Your task to perform on an android device: move an email to a new category in the gmail app Image 0: 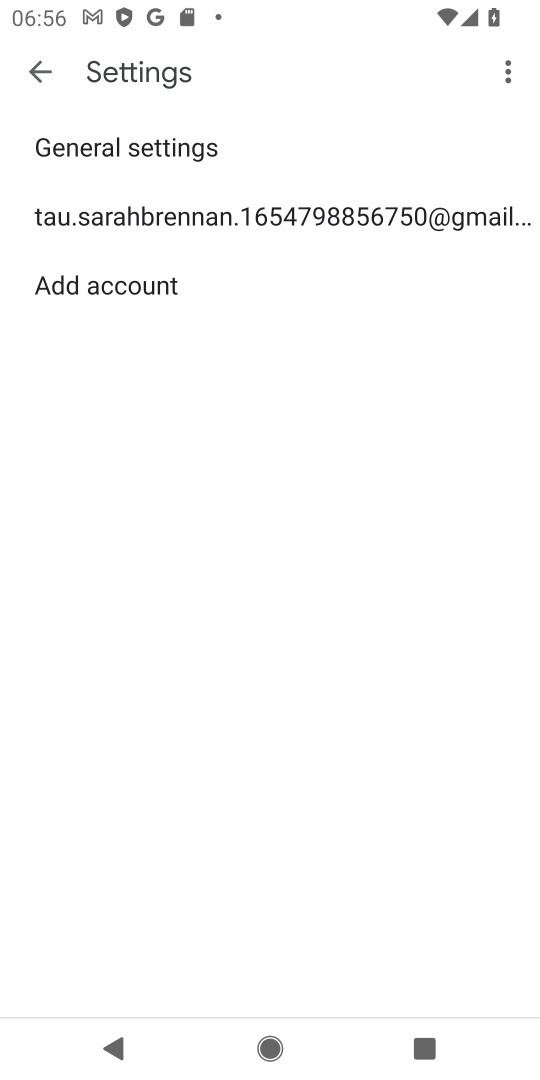
Step 0: press home button
Your task to perform on an android device: move an email to a new category in the gmail app Image 1: 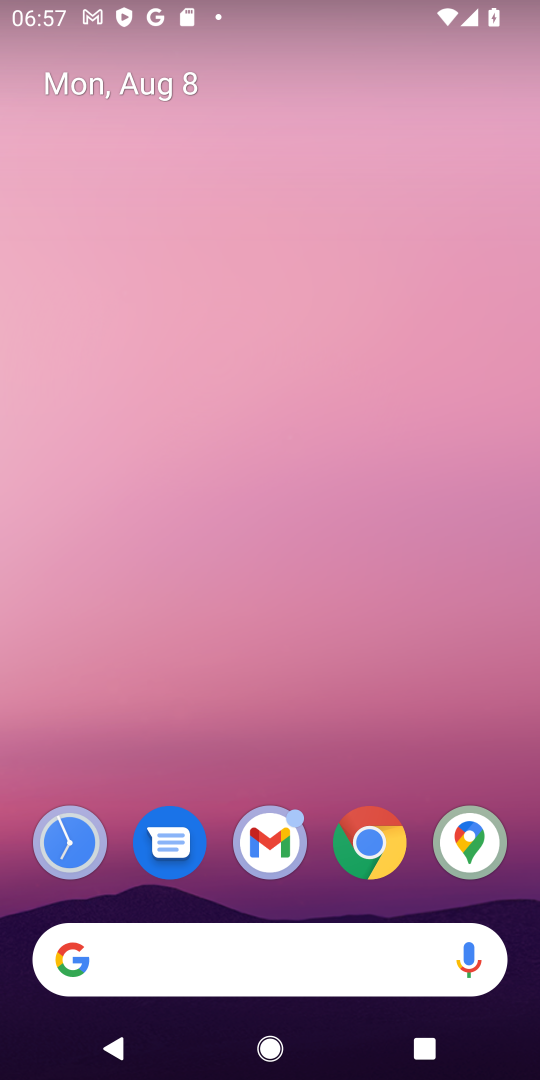
Step 1: drag from (375, 778) to (487, 7)
Your task to perform on an android device: move an email to a new category in the gmail app Image 2: 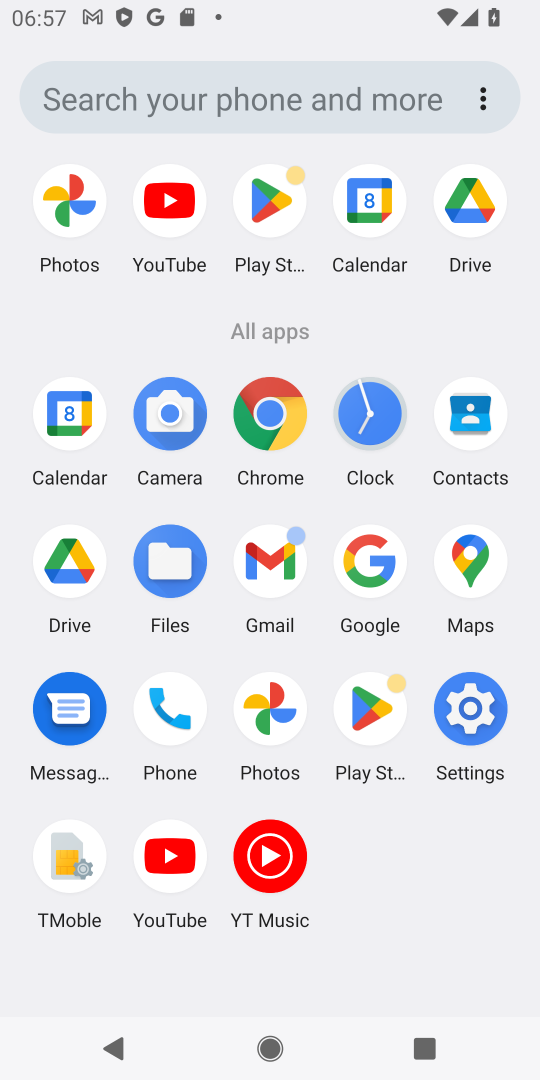
Step 2: click (266, 567)
Your task to perform on an android device: move an email to a new category in the gmail app Image 3: 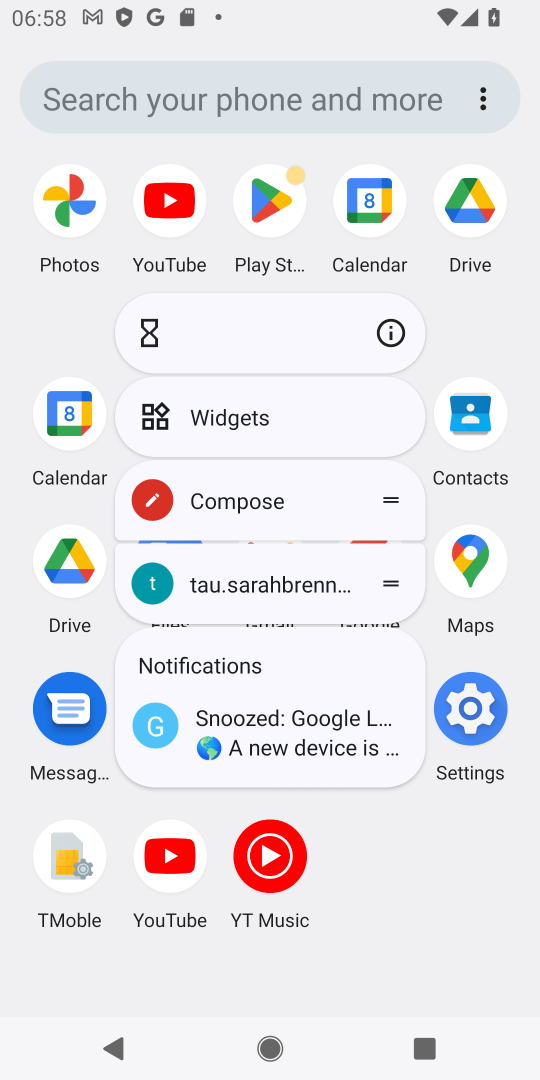
Step 3: click (400, 854)
Your task to perform on an android device: move an email to a new category in the gmail app Image 4: 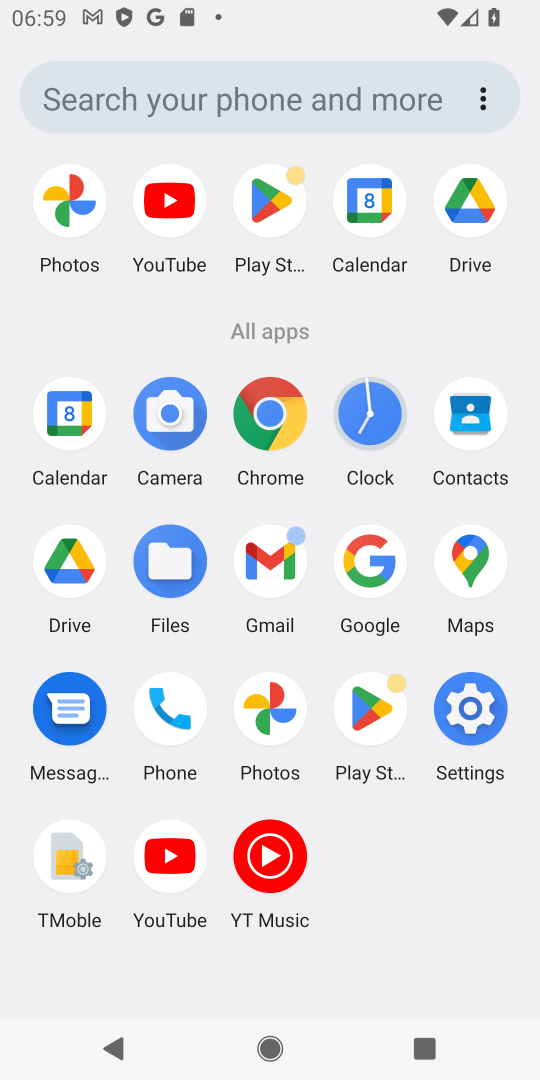
Step 4: click (281, 555)
Your task to perform on an android device: move an email to a new category in the gmail app Image 5: 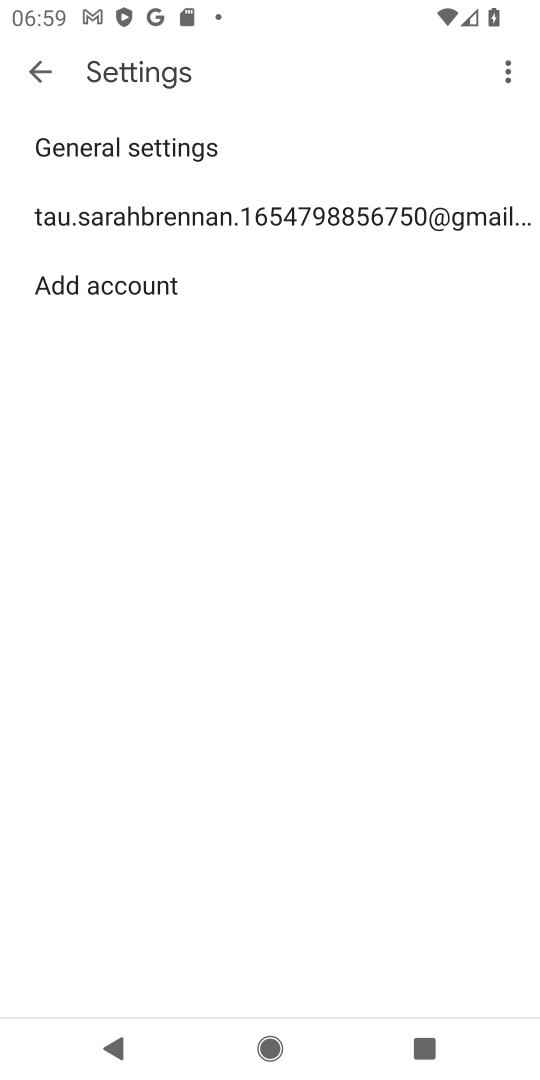
Step 5: click (375, 218)
Your task to perform on an android device: move an email to a new category in the gmail app Image 6: 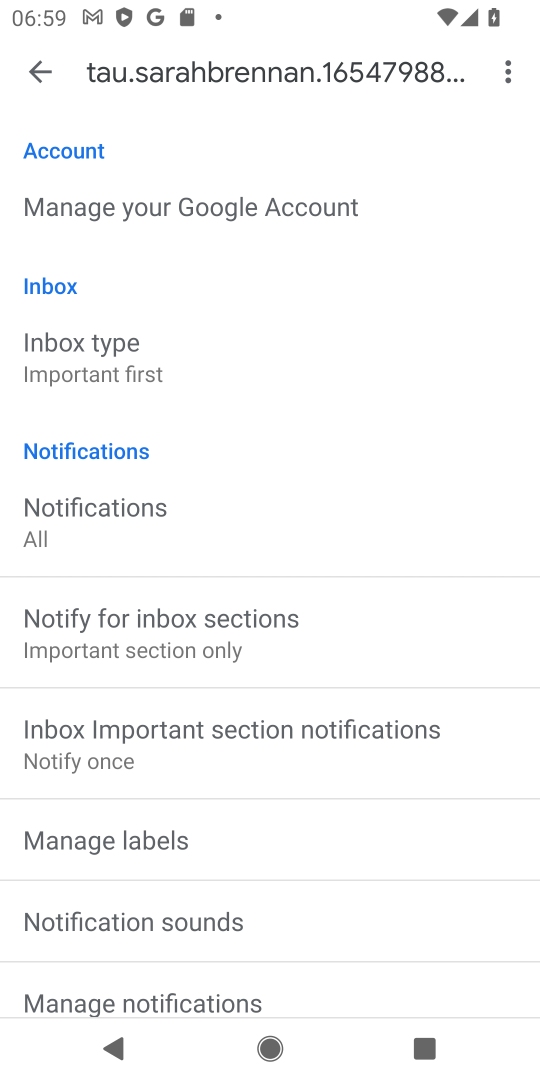
Step 6: task complete